Your task to perform on an android device: snooze an email in the gmail app Image 0: 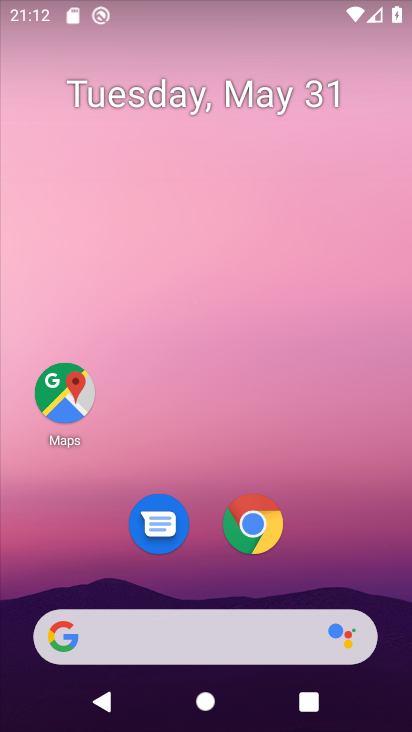
Step 0: drag from (318, 481) to (309, 1)
Your task to perform on an android device: snooze an email in the gmail app Image 1: 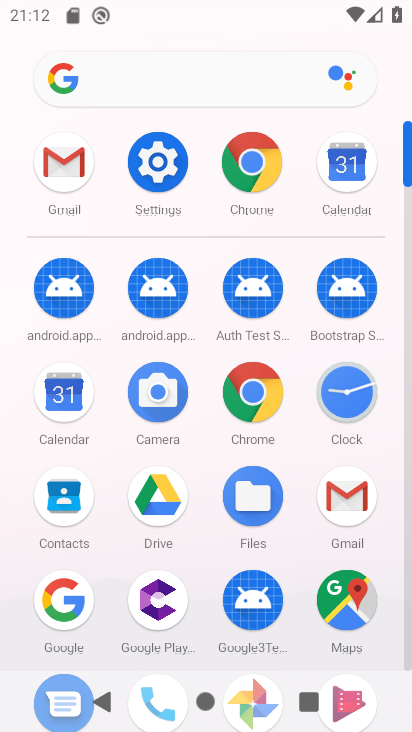
Step 1: click (68, 167)
Your task to perform on an android device: snooze an email in the gmail app Image 2: 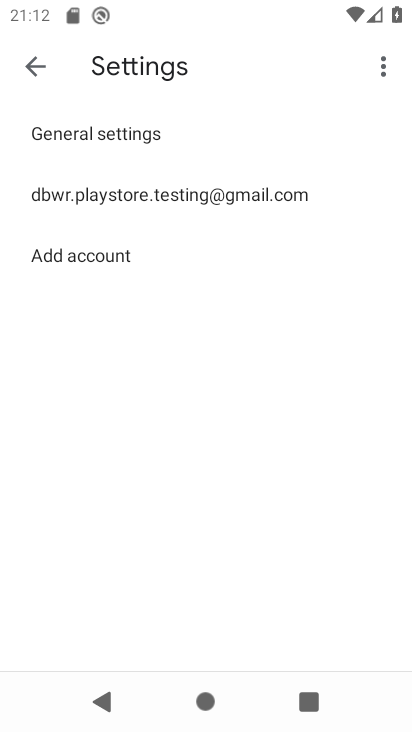
Step 2: click (31, 59)
Your task to perform on an android device: snooze an email in the gmail app Image 3: 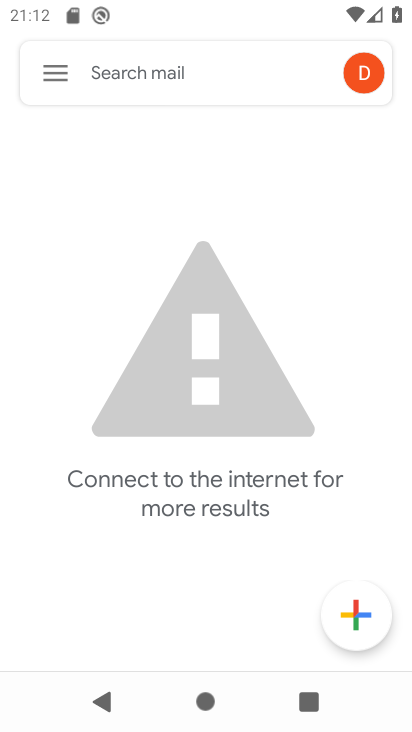
Step 3: click (53, 70)
Your task to perform on an android device: snooze an email in the gmail app Image 4: 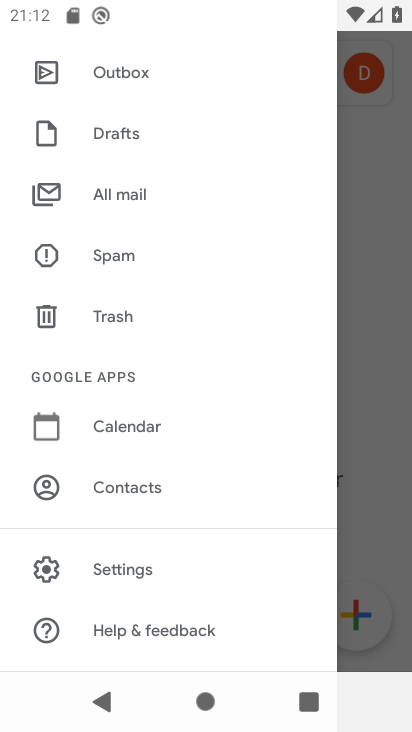
Step 4: click (116, 190)
Your task to perform on an android device: snooze an email in the gmail app Image 5: 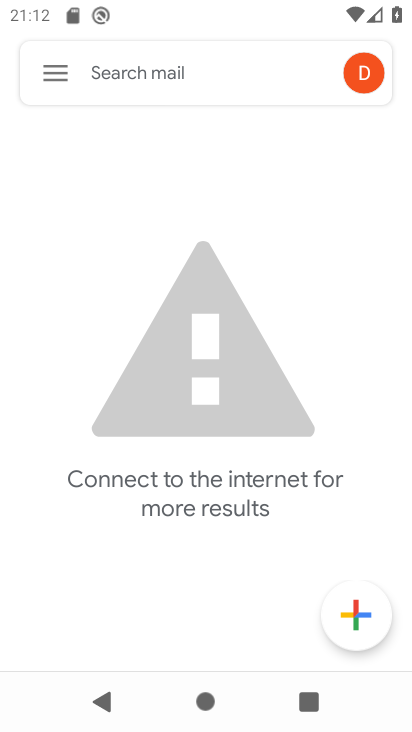
Step 5: click (63, 73)
Your task to perform on an android device: snooze an email in the gmail app Image 6: 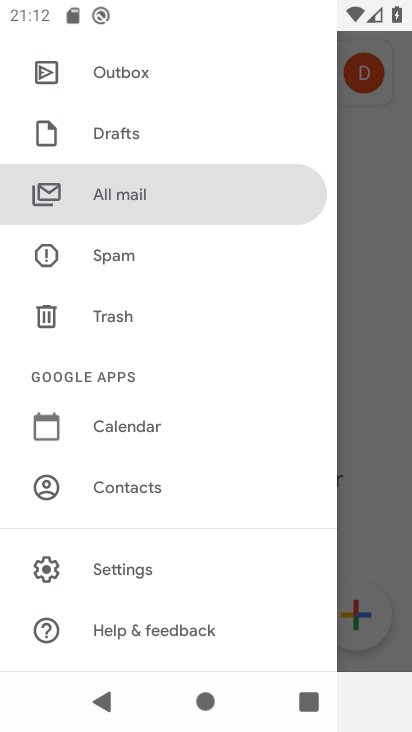
Step 6: click (126, 135)
Your task to perform on an android device: snooze an email in the gmail app Image 7: 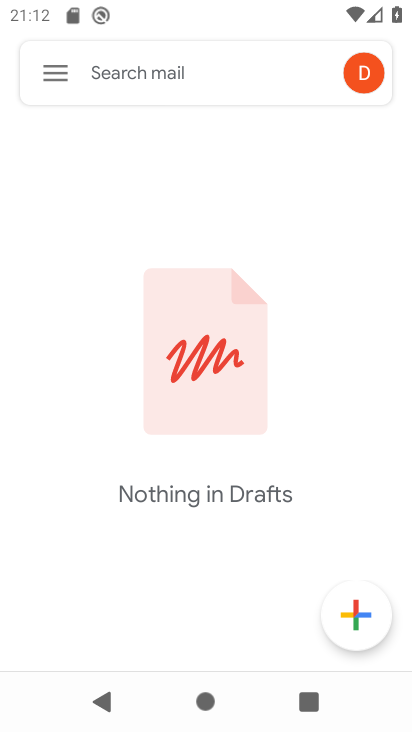
Step 7: click (58, 71)
Your task to perform on an android device: snooze an email in the gmail app Image 8: 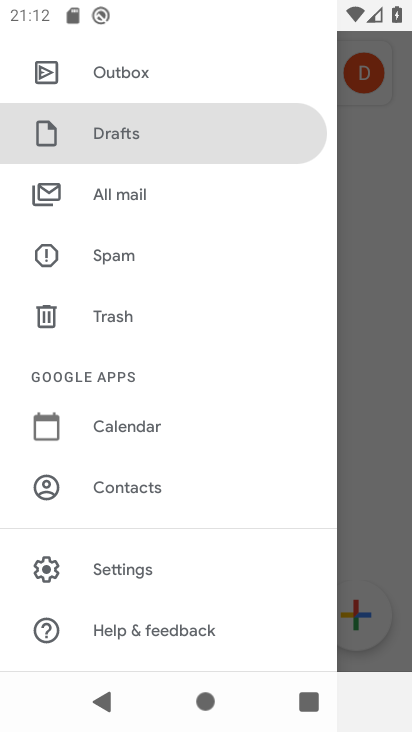
Step 8: click (110, 192)
Your task to perform on an android device: snooze an email in the gmail app Image 9: 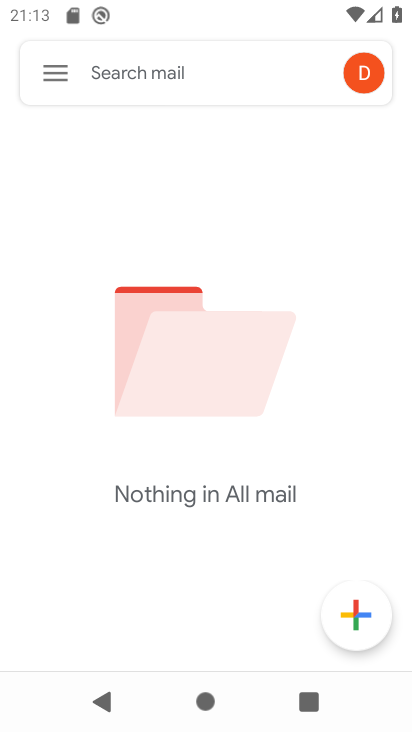
Step 9: task complete